Your task to perform on an android device: Open battery settings Image 0: 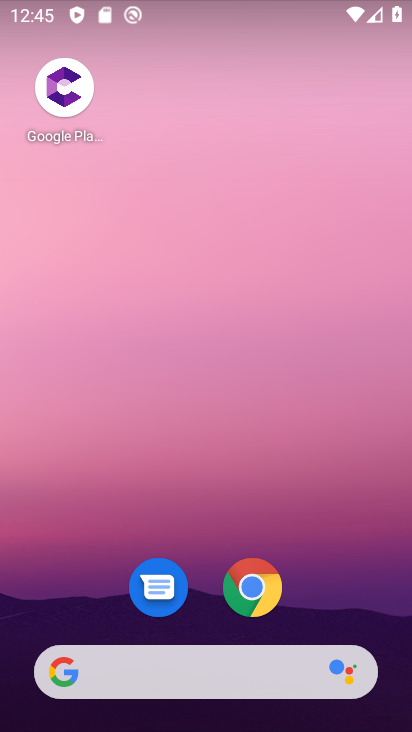
Step 0: drag from (299, 535) to (186, 23)
Your task to perform on an android device: Open battery settings Image 1: 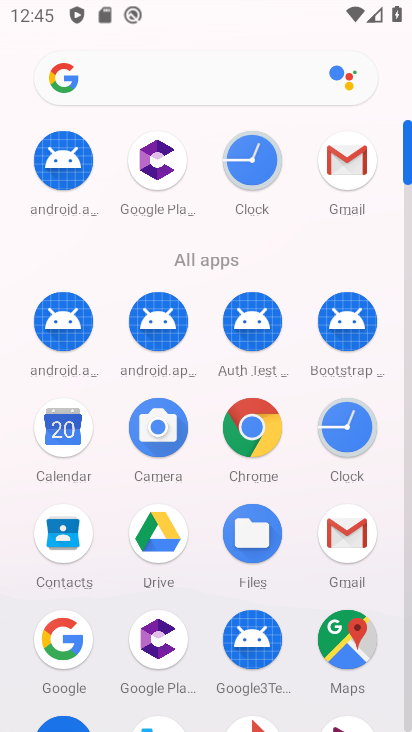
Step 1: drag from (192, 238) to (189, 188)
Your task to perform on an android device: Open battery settings Image 2: 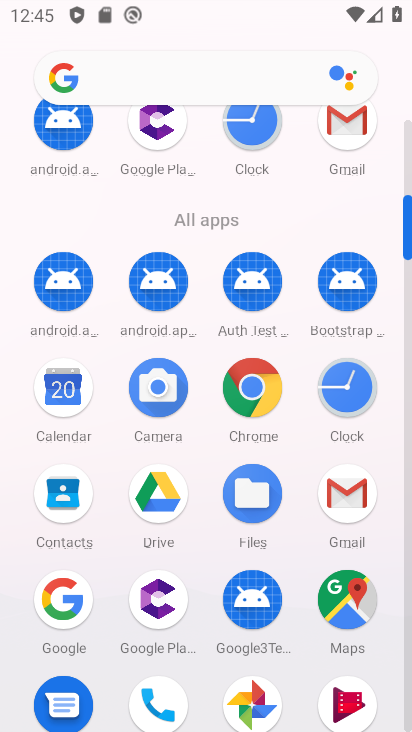
Step 2: drag from (195, 559) to (195, 309)
Your task to perform on an android device: Open battery settings Image 3: 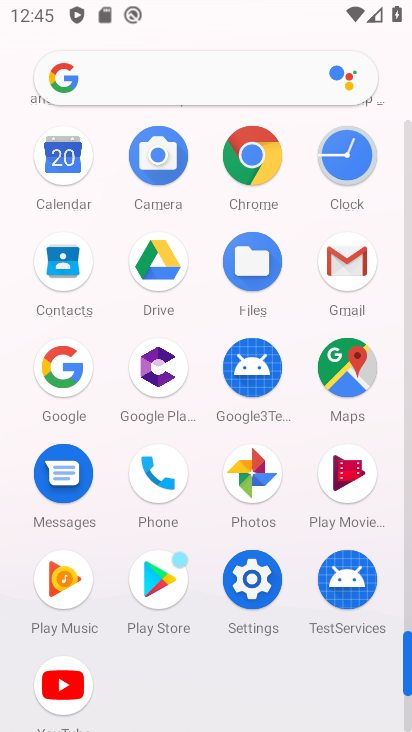
Step 3: click (255, 581)
Your task to perform on an android device: Open battery settings Image 4: 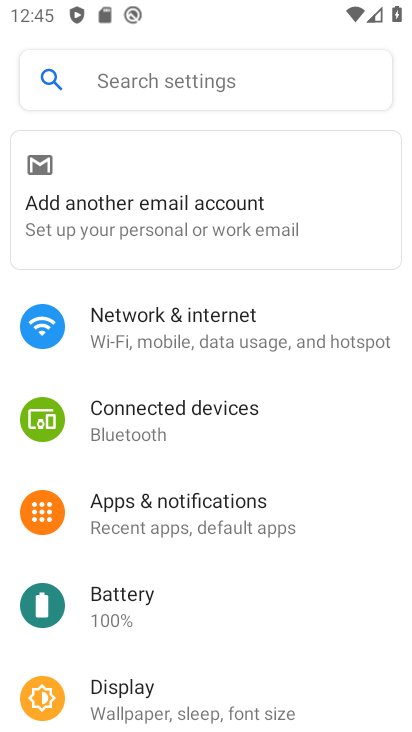
Step 4: click (107, 588)
Your task to perform on an android device: Open battery settings Image 5: 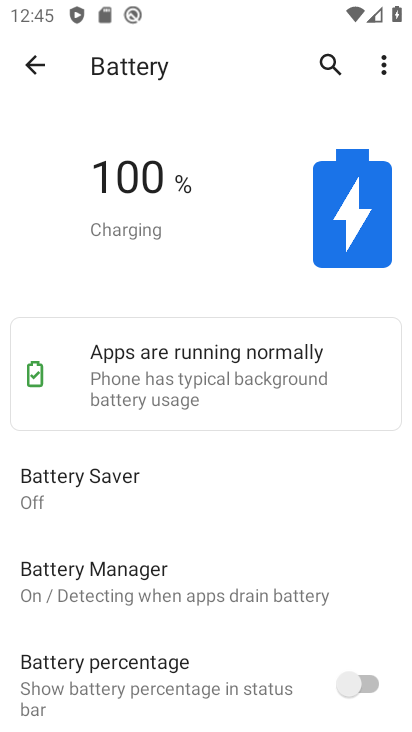
Step 5: task complete